Your task to perform on an android device: Open maps Image 0: 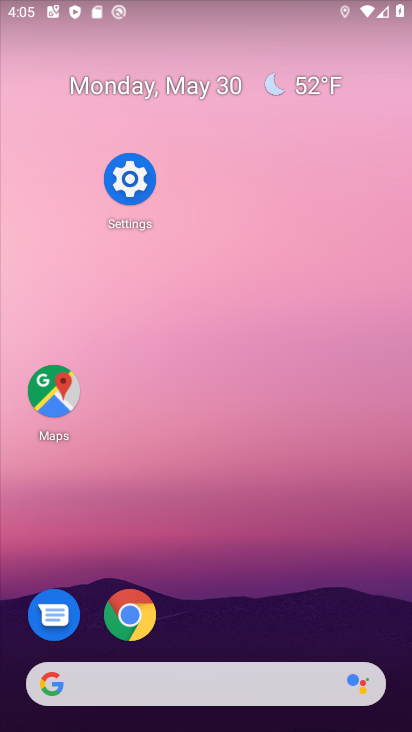
Step 0: click (63, 399)
Your task to perform on an android device: Open maps Image 1: 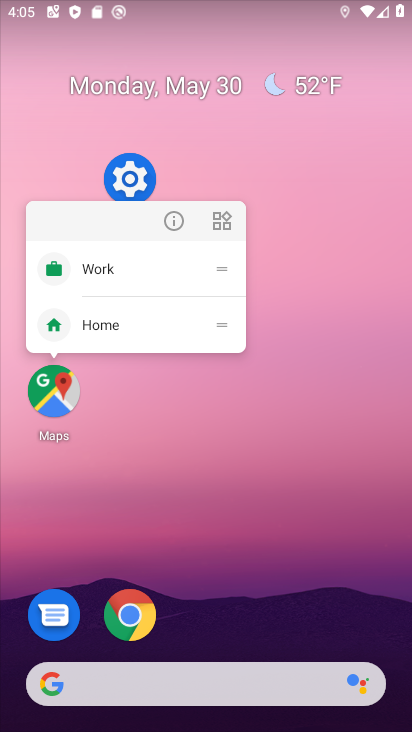
Step 1: click (44, 389)
Your task to perform on an android device: Open maps Image 2: 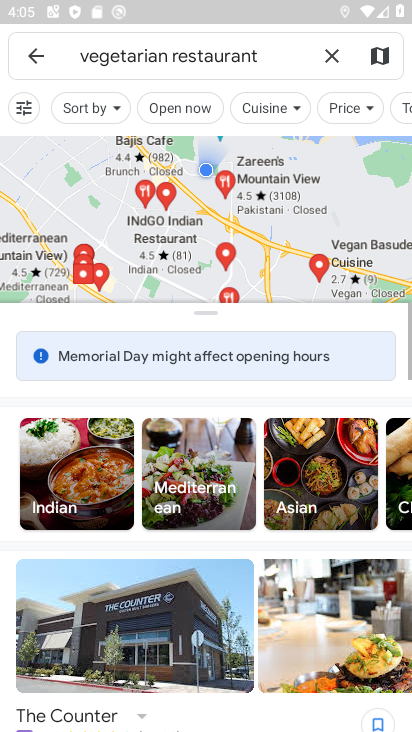
Step 2: task complete